Your task to perform on an android device: Open the stopwatch Image 0: 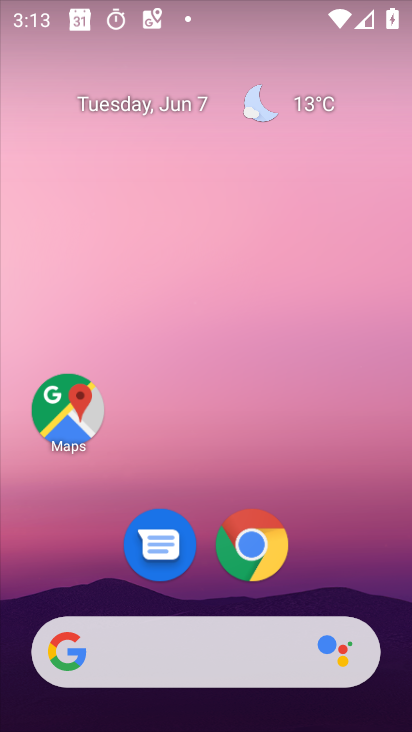
Step 0: drag from (342, 495) to (265, 0)
Your task to perform on an android device: Open the stopwatch Image 1: 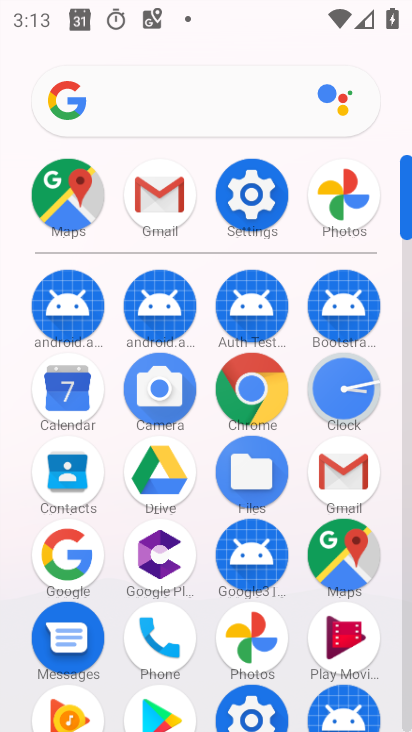
Step 1: click (357, 387)
Your task to perform on an android device: Open the stopwatch Image 2: 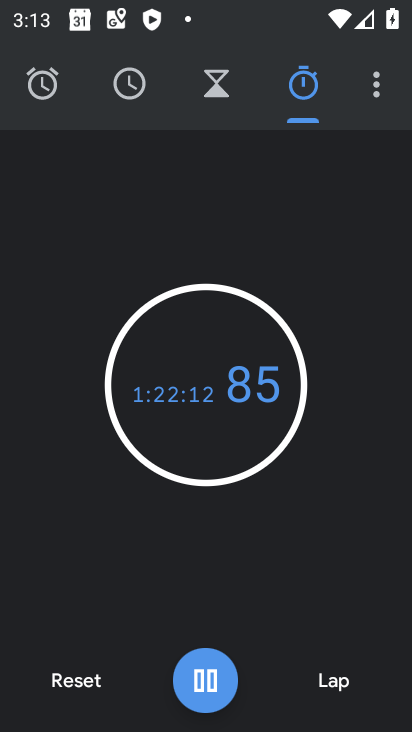
Step 2: click (374, 88)
Your task to perform on an android device: Open the stopwatch Image 3: 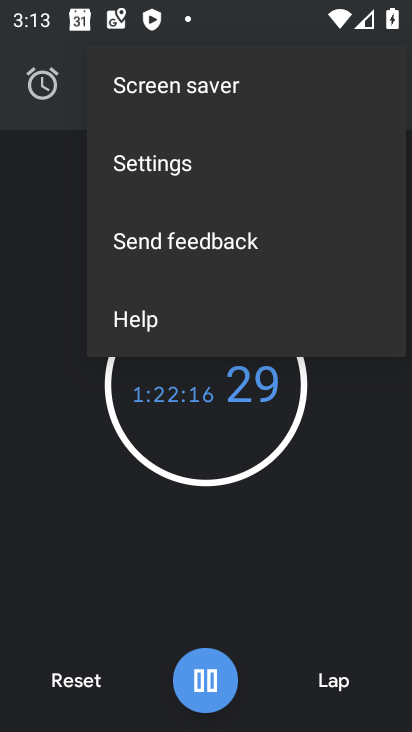
Step 3: task complete